Your task to perform on an android device: Search for dell xps on ebay.com, select the first entry, and add it to the cart. Image 0: 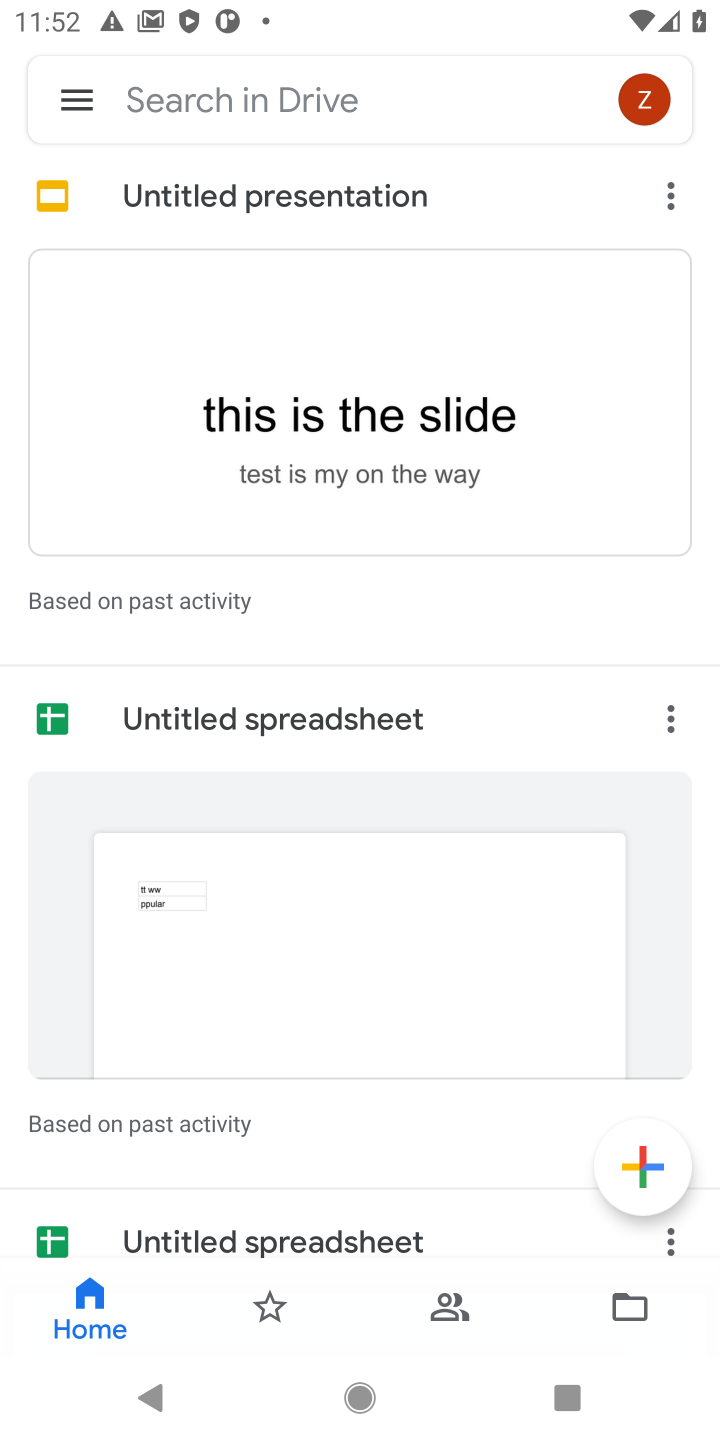
Step 0: press home button
Your task to perform on an android device: Search for dell xps on ebay.com, select the first entry, and add it to the cart. Image 1: 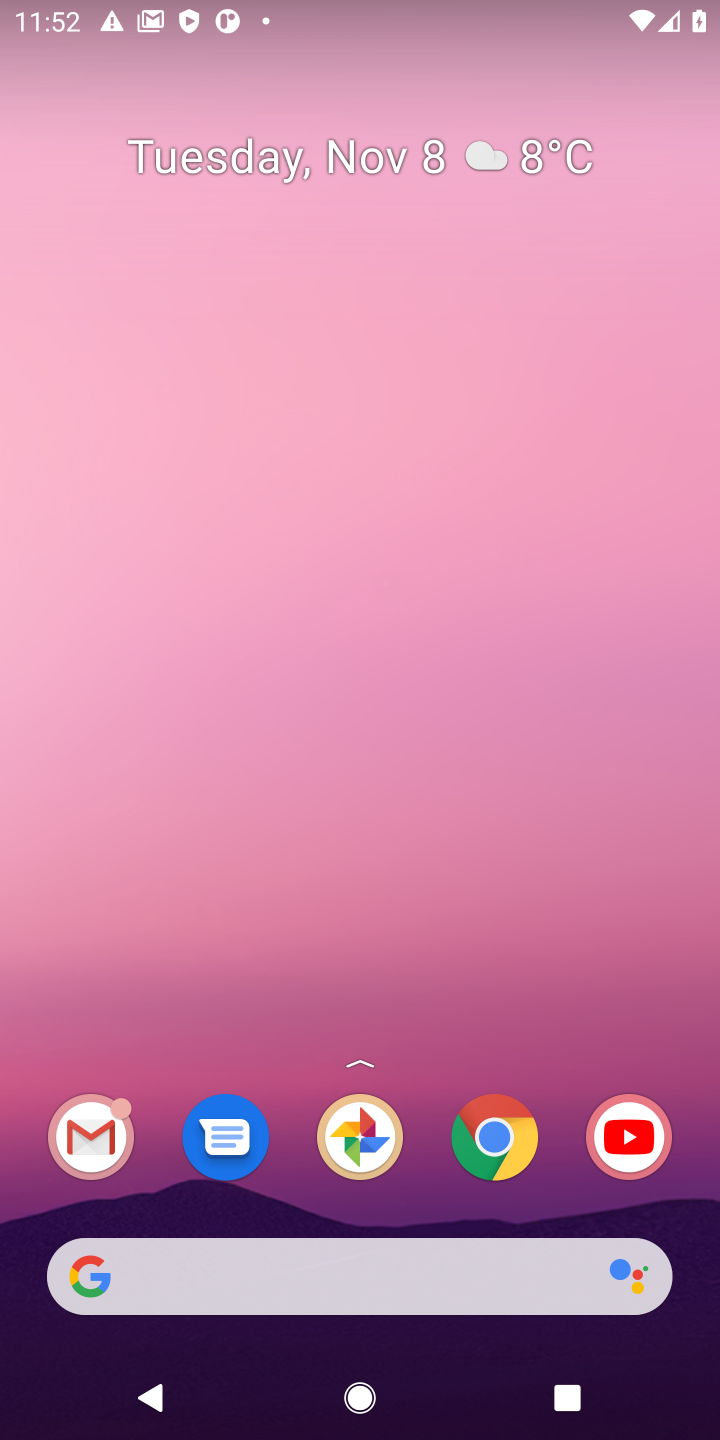
Step 1: click (482, 1154)
Your task to perform on an android device: Search for dell xps on ebay.com, select the first entry, and add it to the cart. Image 2: 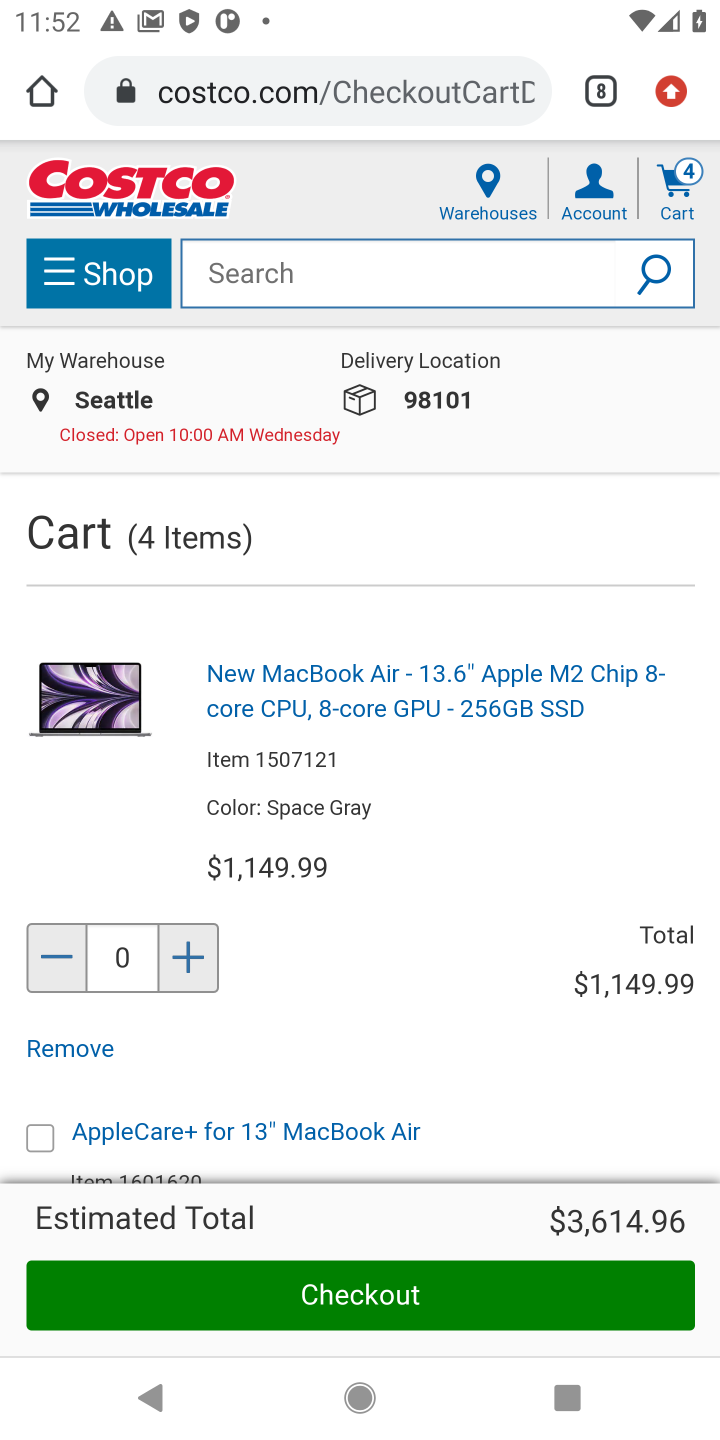
Step 2: click (598, 86)
Your task to perform on an android device: Search for dell xps on ebay.com, select the first entry, and add it to the cart. Image 3: 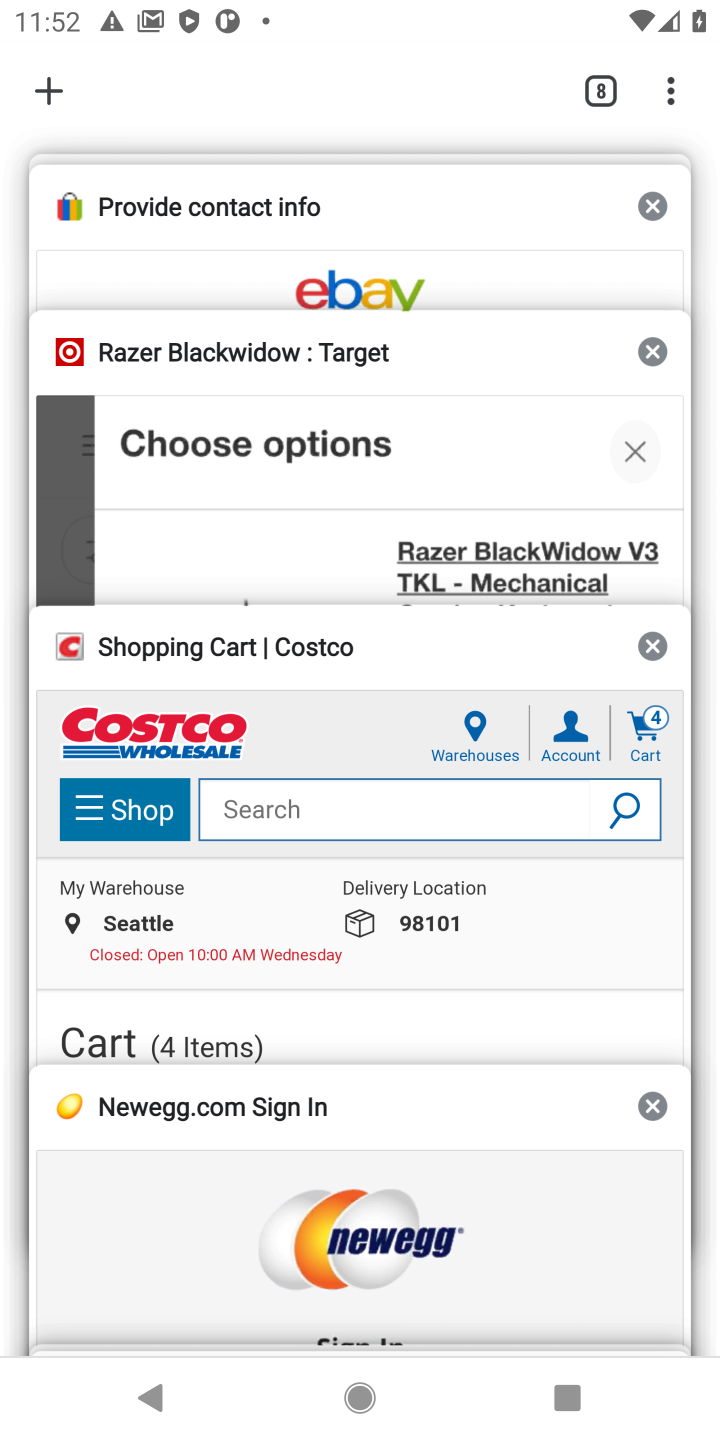
Step 3: click (424, 220)
Your task to perform on an android device: Search for dell xps on ebay.com, select the first entry, and add it to the cart. Image 4: 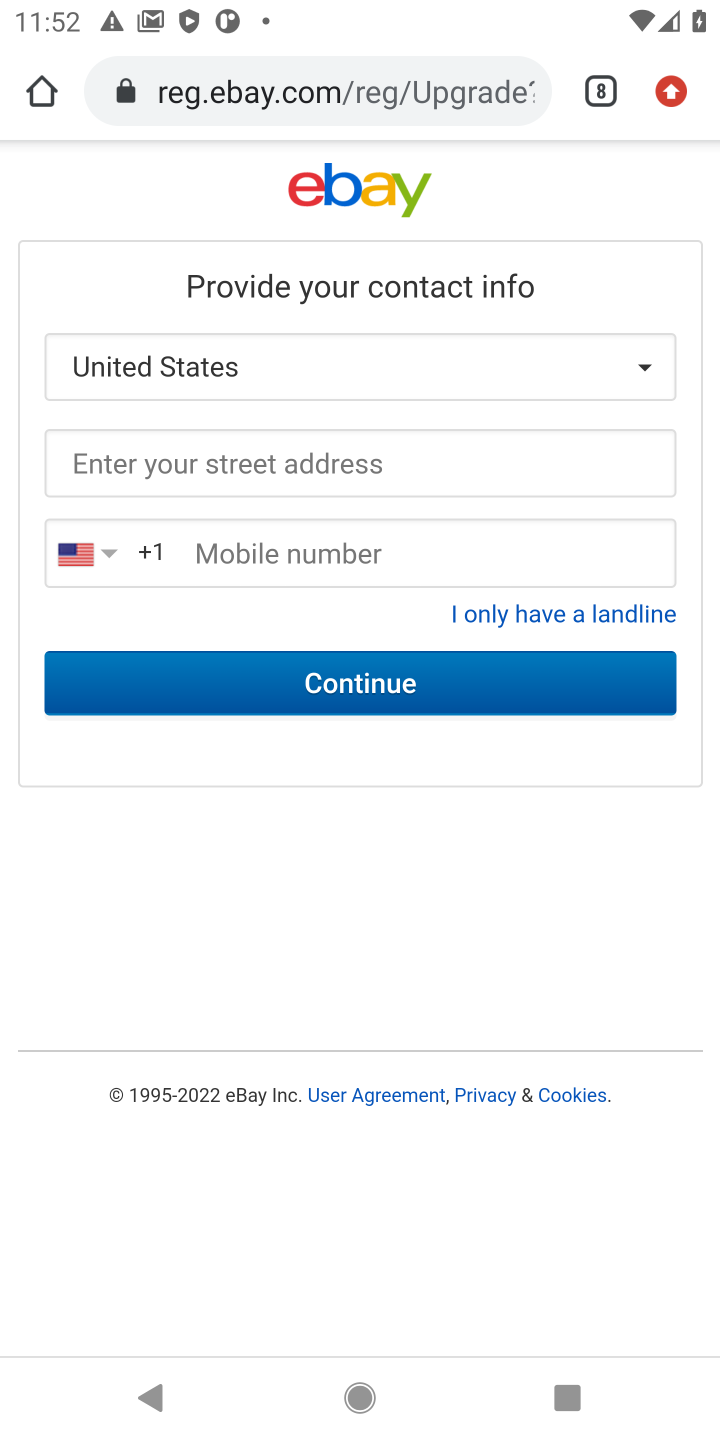
Step 4: press back button
Your task to perform on an android device: Search for dell xps on ebay.com, select the first entry, and add it to the cart. Image 5: 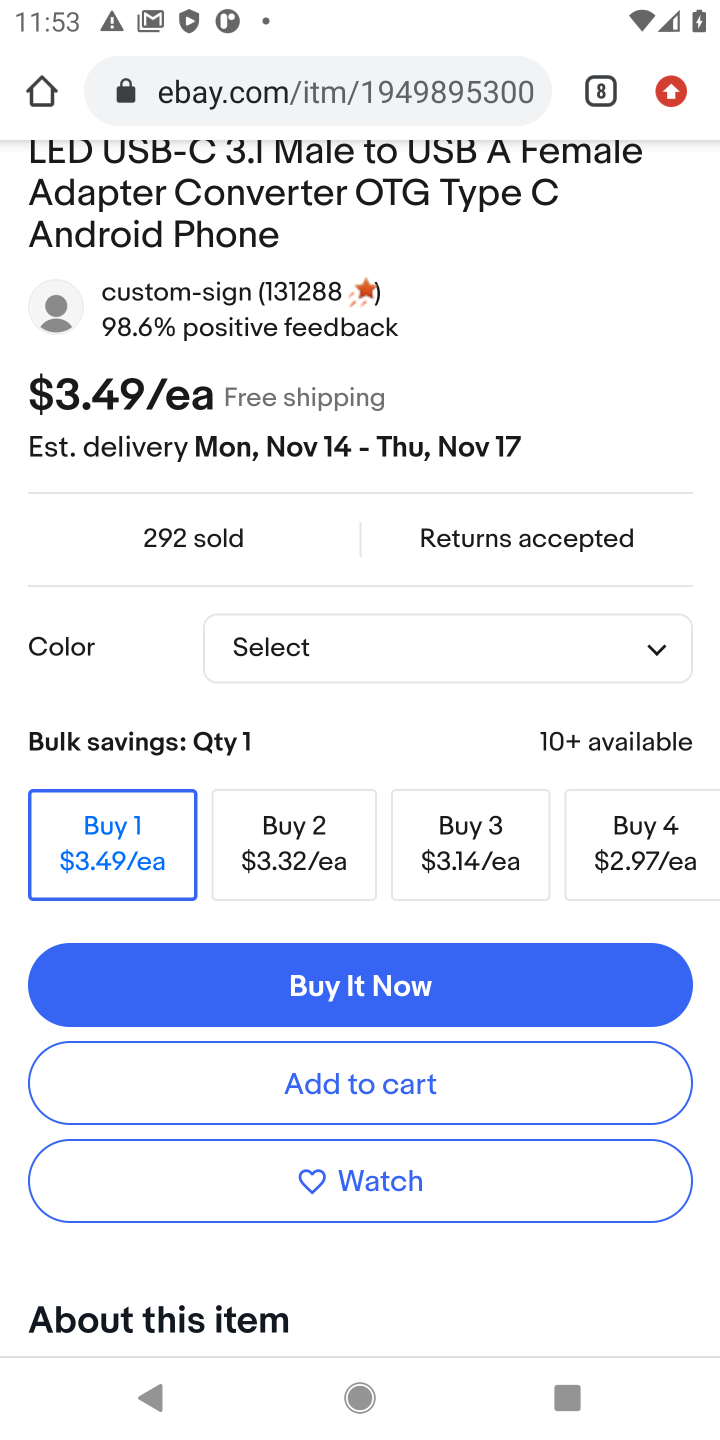
Step 5: drag from (649, 253) to (493, 1147)
Your task to perform on an android device: Search for dell xps on ebay.com, select the first entry, and add it to the cart. Image 6: 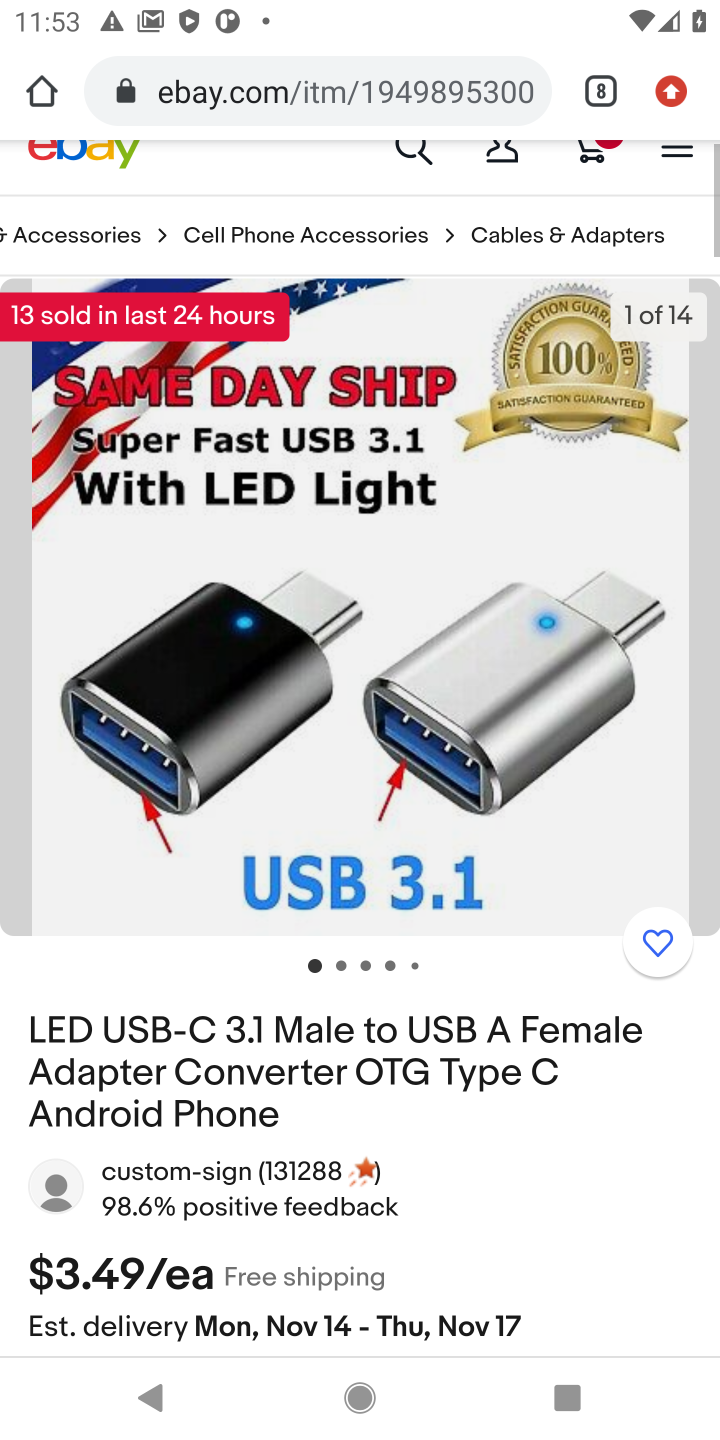
Step 6: drag from (569, 298) to (564, 1013)
Your task to perform on an android device: Search for dell xps on ebay.com, select the first entry, and add it to the cart. Image 7: 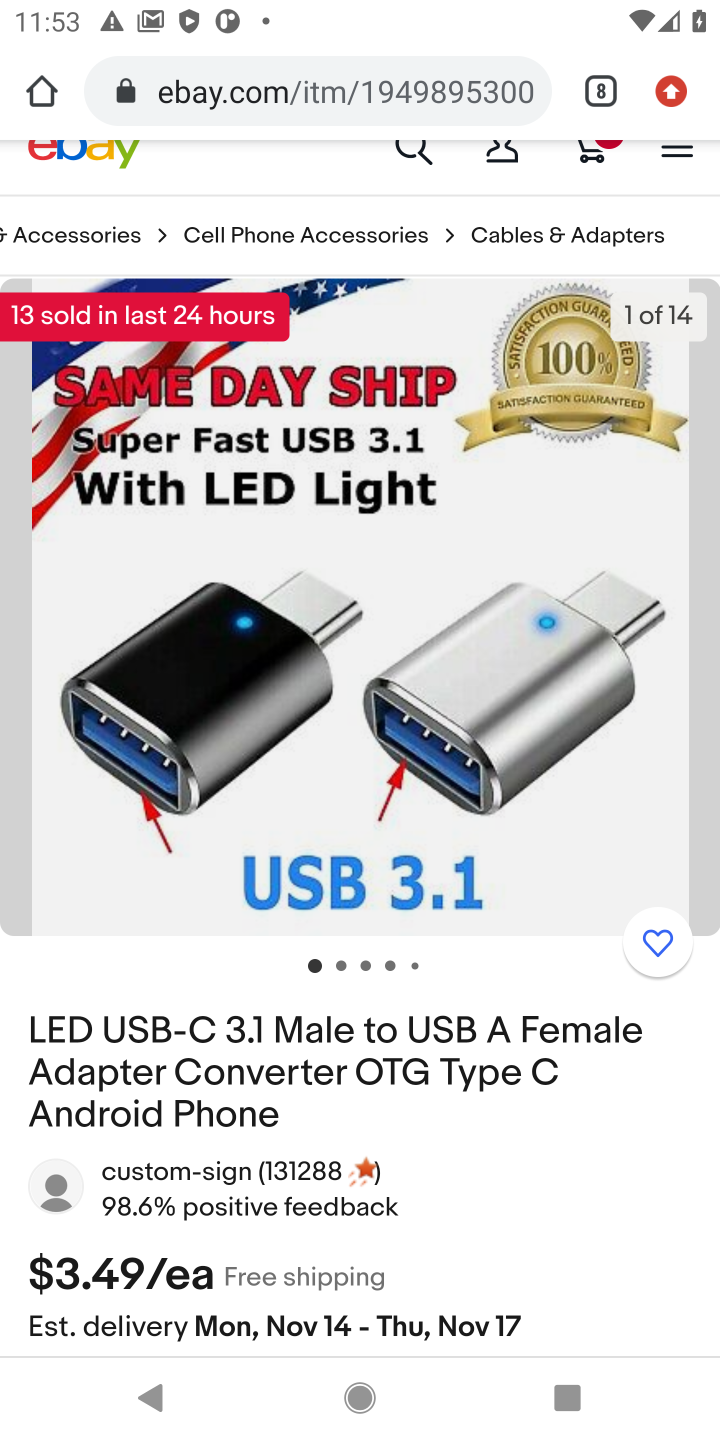
Step 7: click (406, 147)
Your task to perform on an android device: Search for dell xps on ebay.com, select the first entry, and add it to the cart. Image 8: 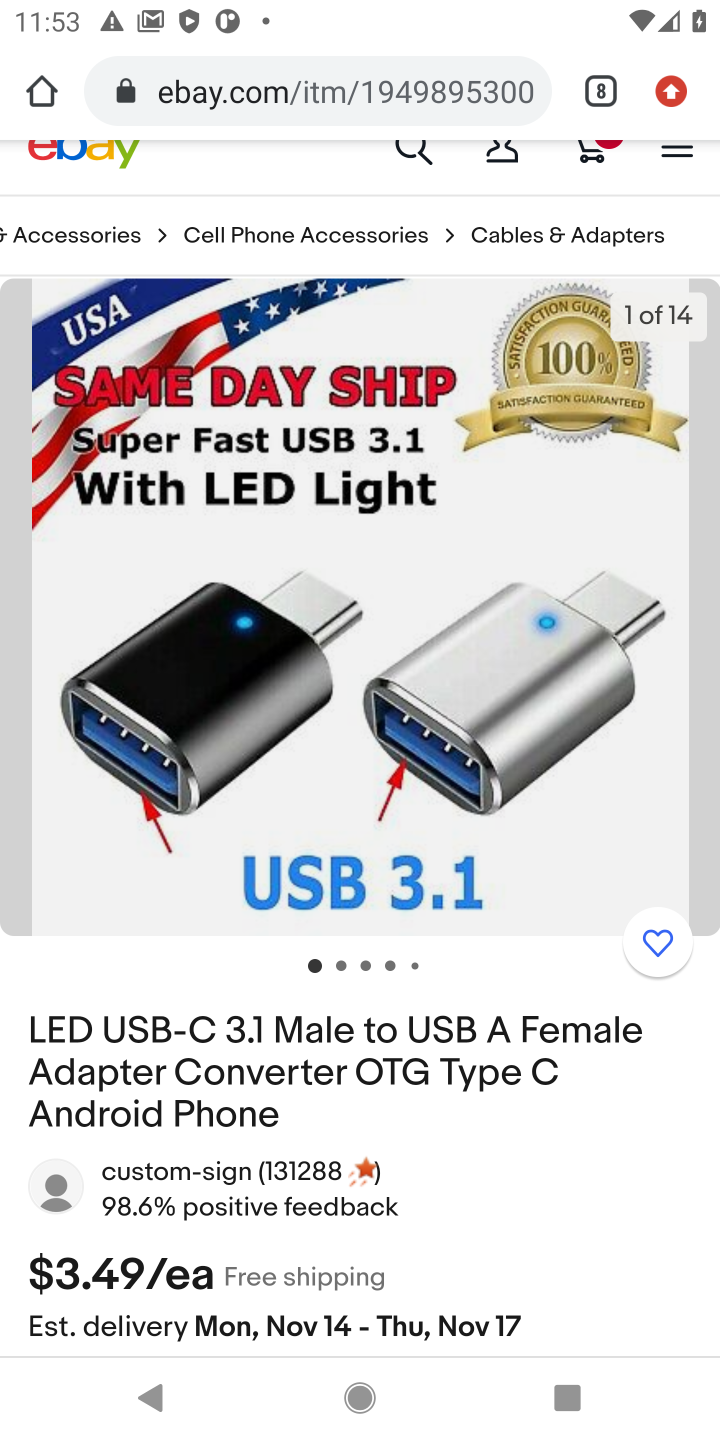
Step 8: click (412, 150)
Your task to perform on an android device: Search for dell xps on ebay.com, select the first entry, and add it to the cart. Image 9: 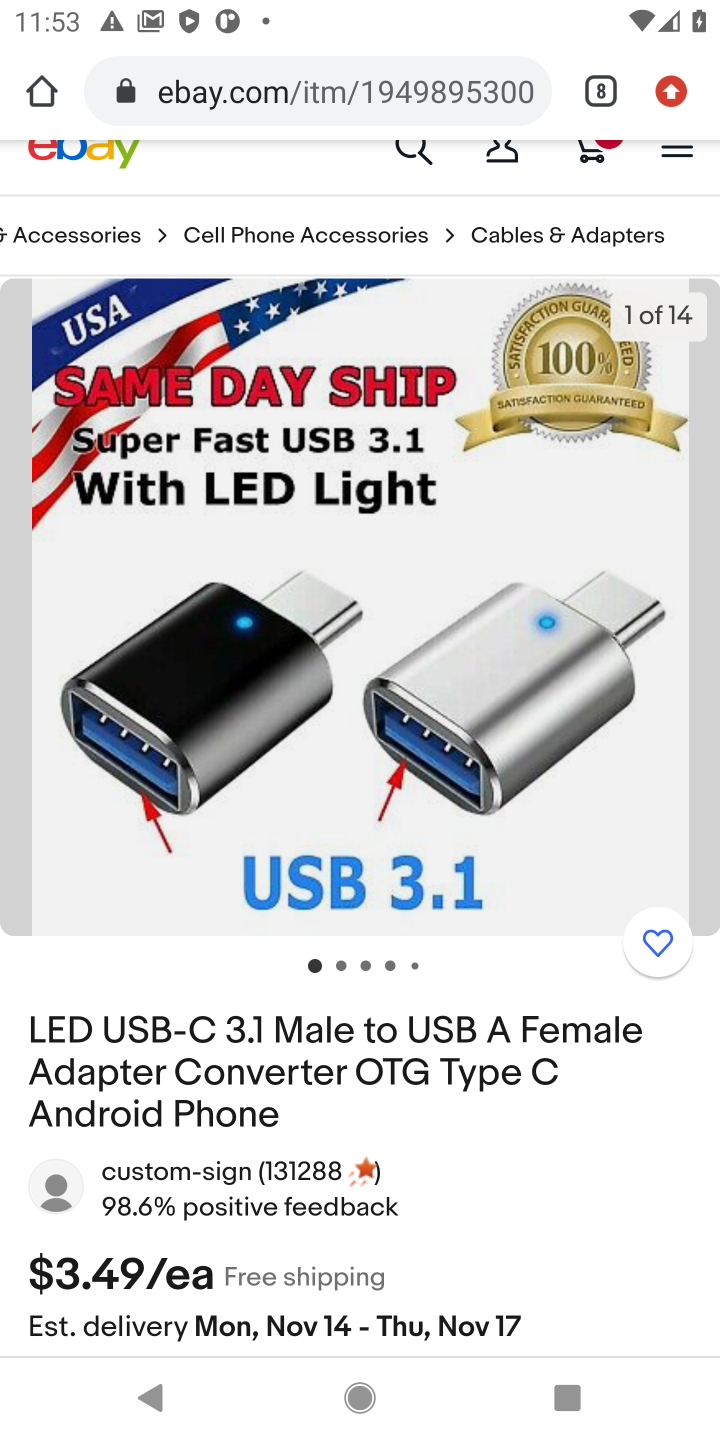
Step 9: drag from (535, 197) to (510, 692)
Your task to perform on an android device: Search for dell xps on ebay.com, select the first entry, and add it to the cart. Image 10: 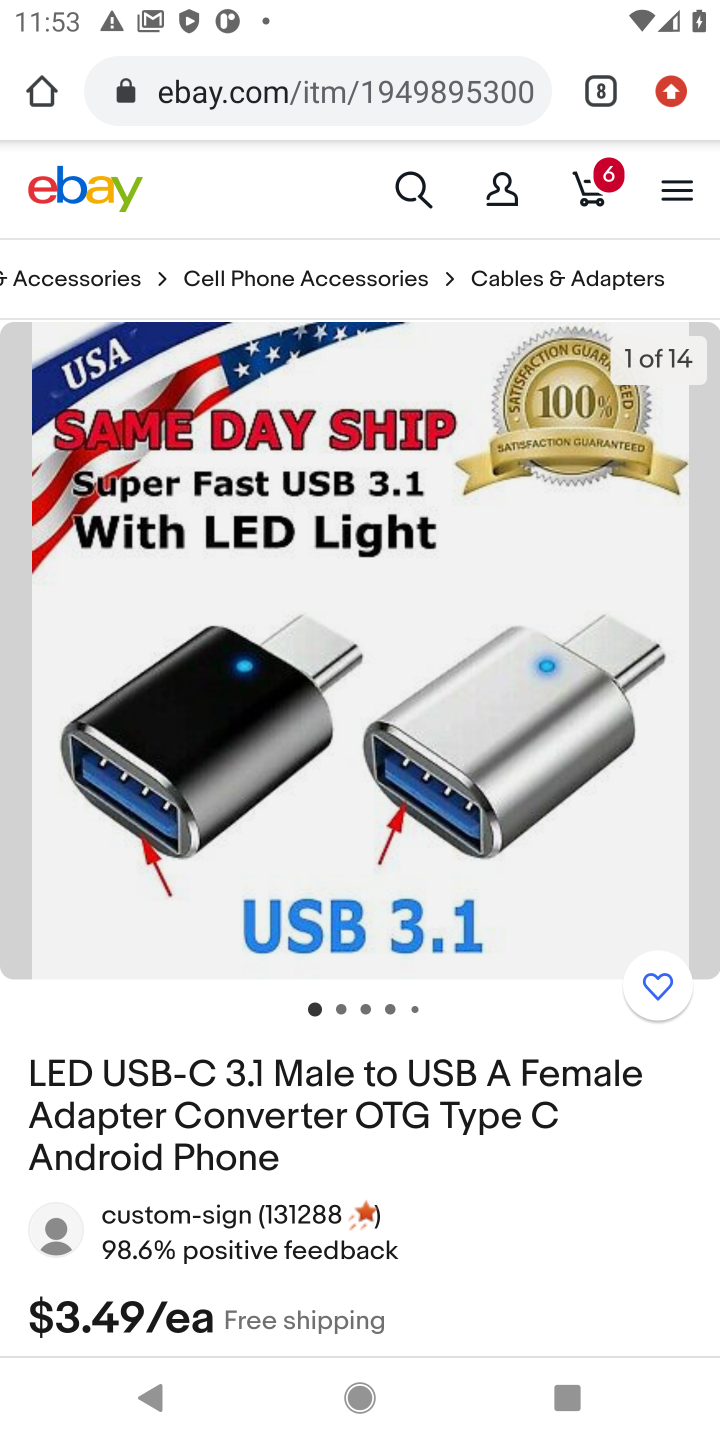
Step 10: click (410, 195)
Your task to perform on an android device: Search for dell xps on ebay.com, select the first entry, and add it to the cart. Image 11: 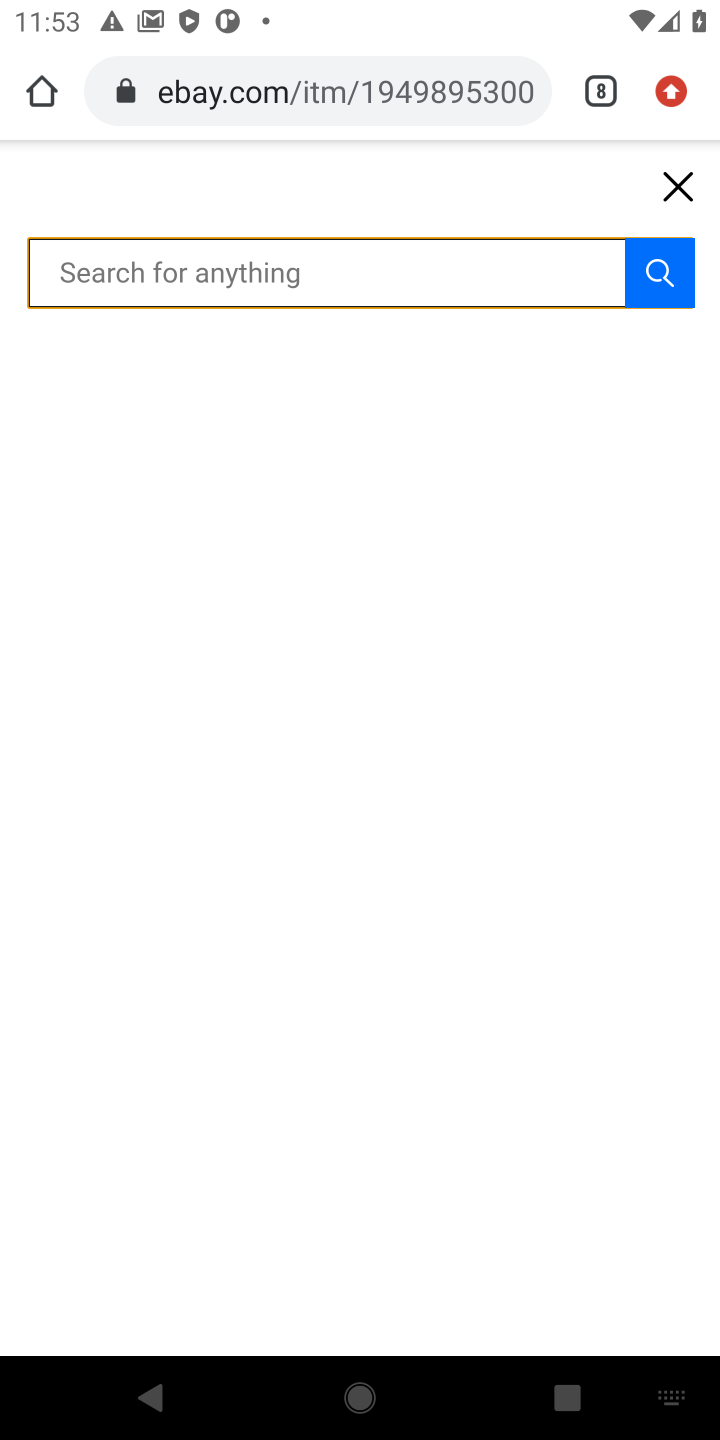
Step 11: type "dell xps"
Your task to perform on an android device: Search for dell xps on ebay.com, select the first entry, and add it to the cart. Image 12: 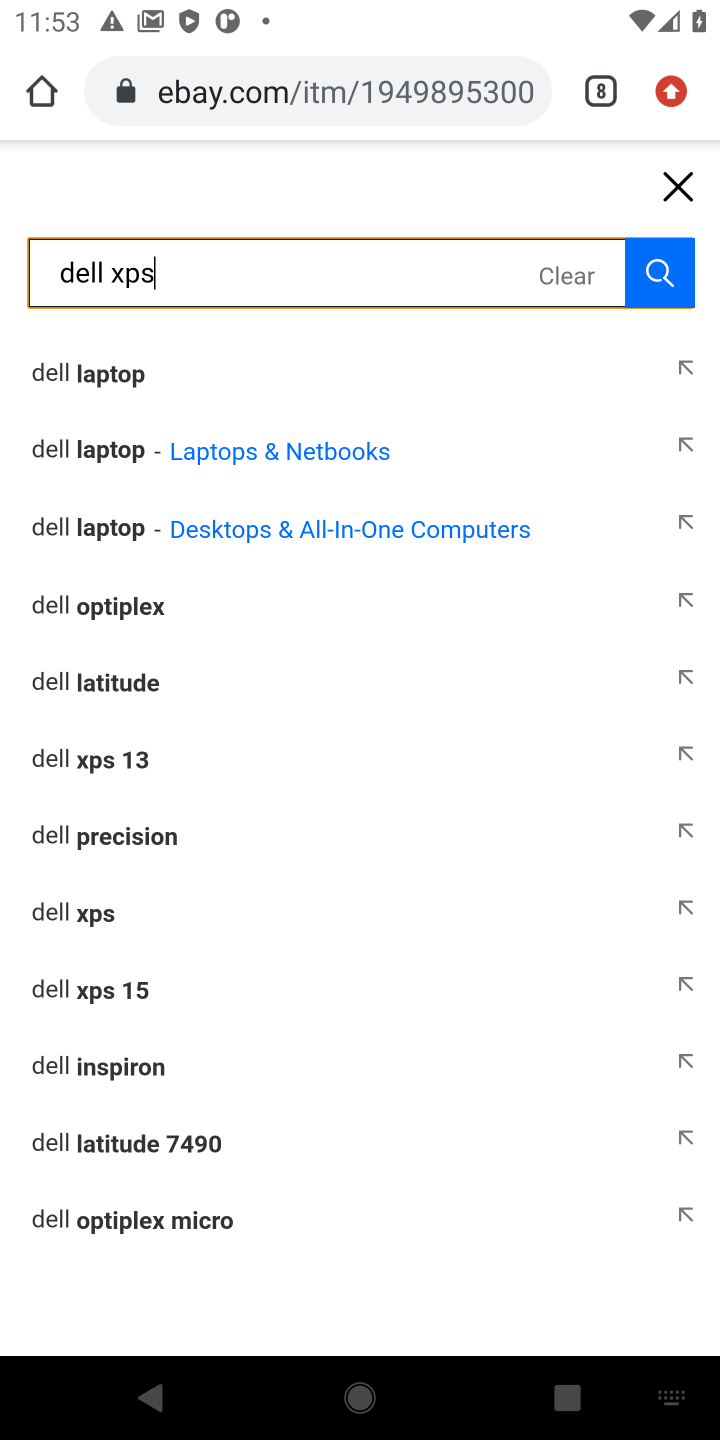
Step 12: click (84, 909)
Your task to perform on an android device: Search for dell xps on ebay.com, select the first entry, and add it to the cart. Image 13: 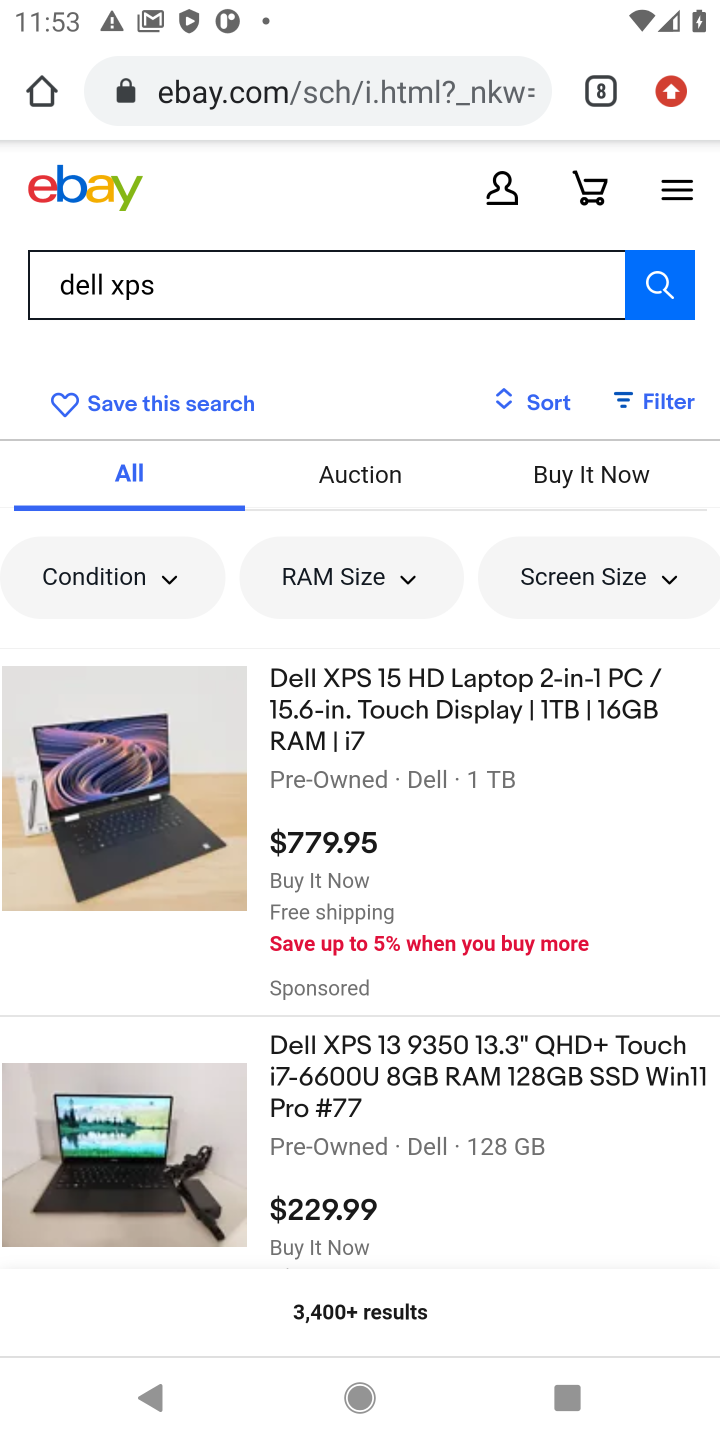
Step 13: click (497, 707)
Your task to perform on an android device: Search for dell xps on ebay.com, select the first entry, and add it to the cart. Image 14: 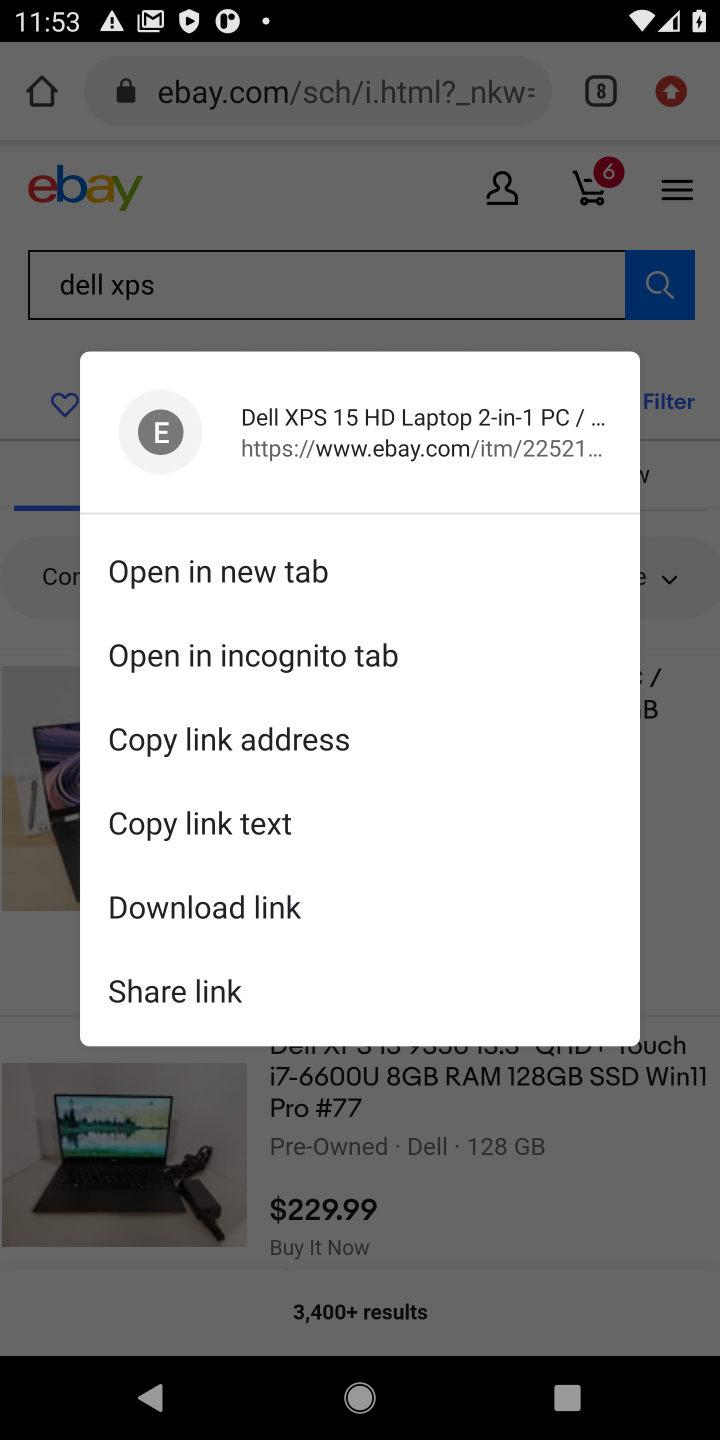
Step 14: click (599, 1150)
Your task to perform on an android device: Search for dell xps on ebay.com, select the first entry, and add it to the cart. Image 15: 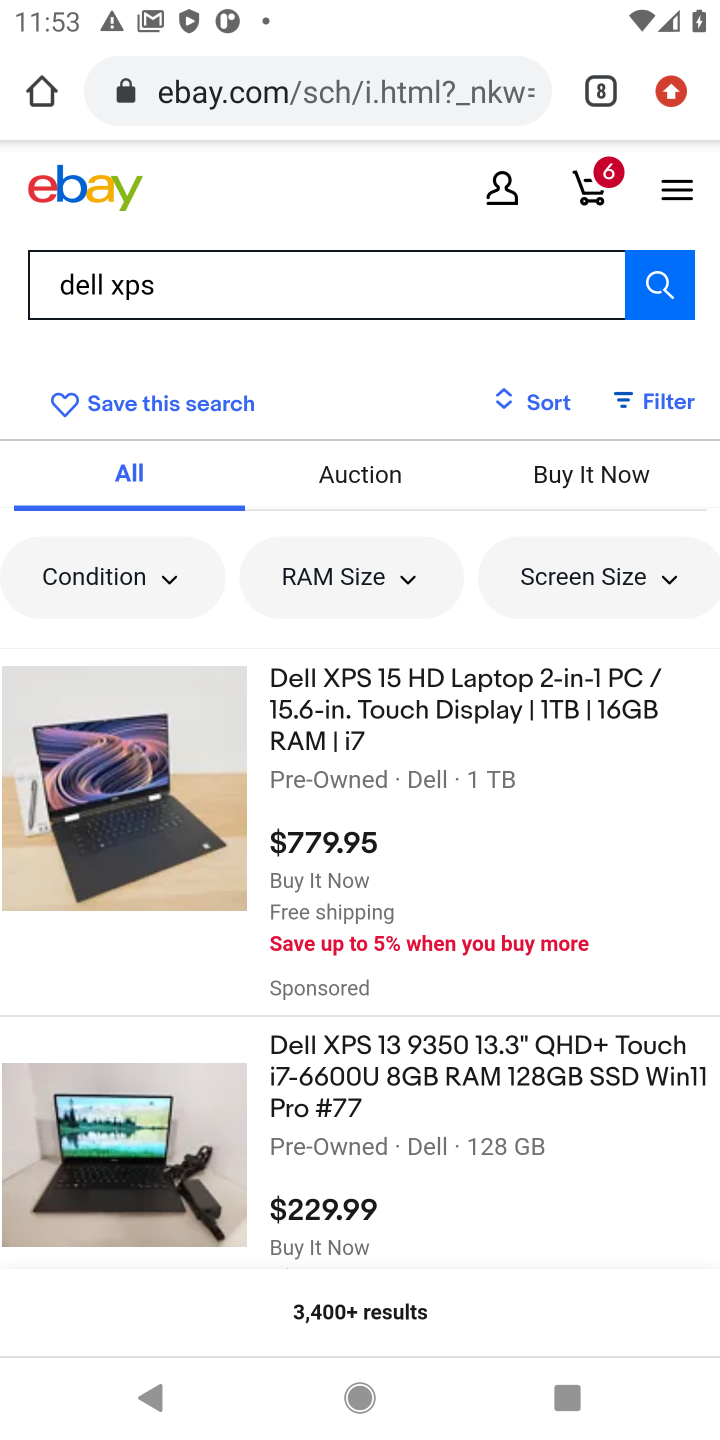
Step 15: click (497, 687)
Your task to perform on an android device: Search for dell xps on ebay.com, select the first entry, and add it to the cart. Image 16: 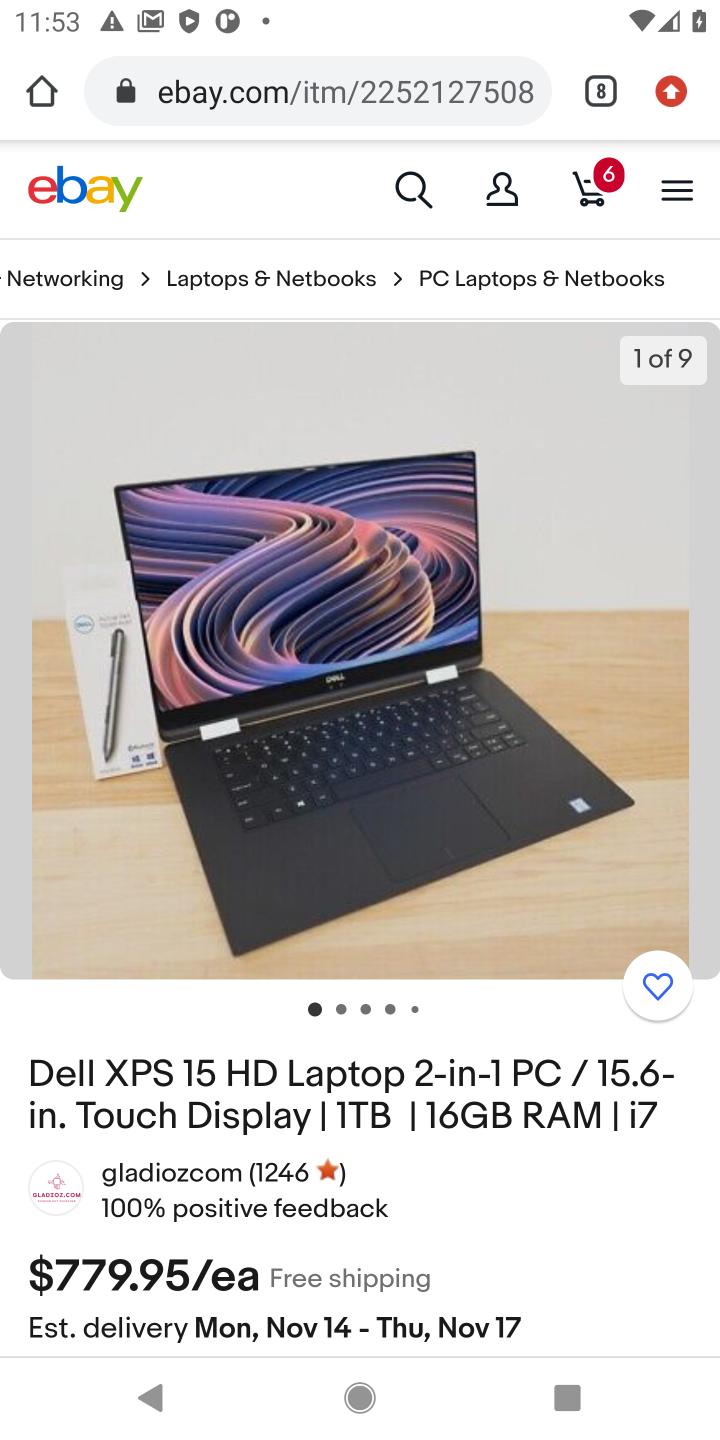
Step 16: drag from (715, 523) to (666, 1215)
Your task to perform on an android device: Search for dell xps on ebay.com, select the first entry, and add it to the cart. Image 17: 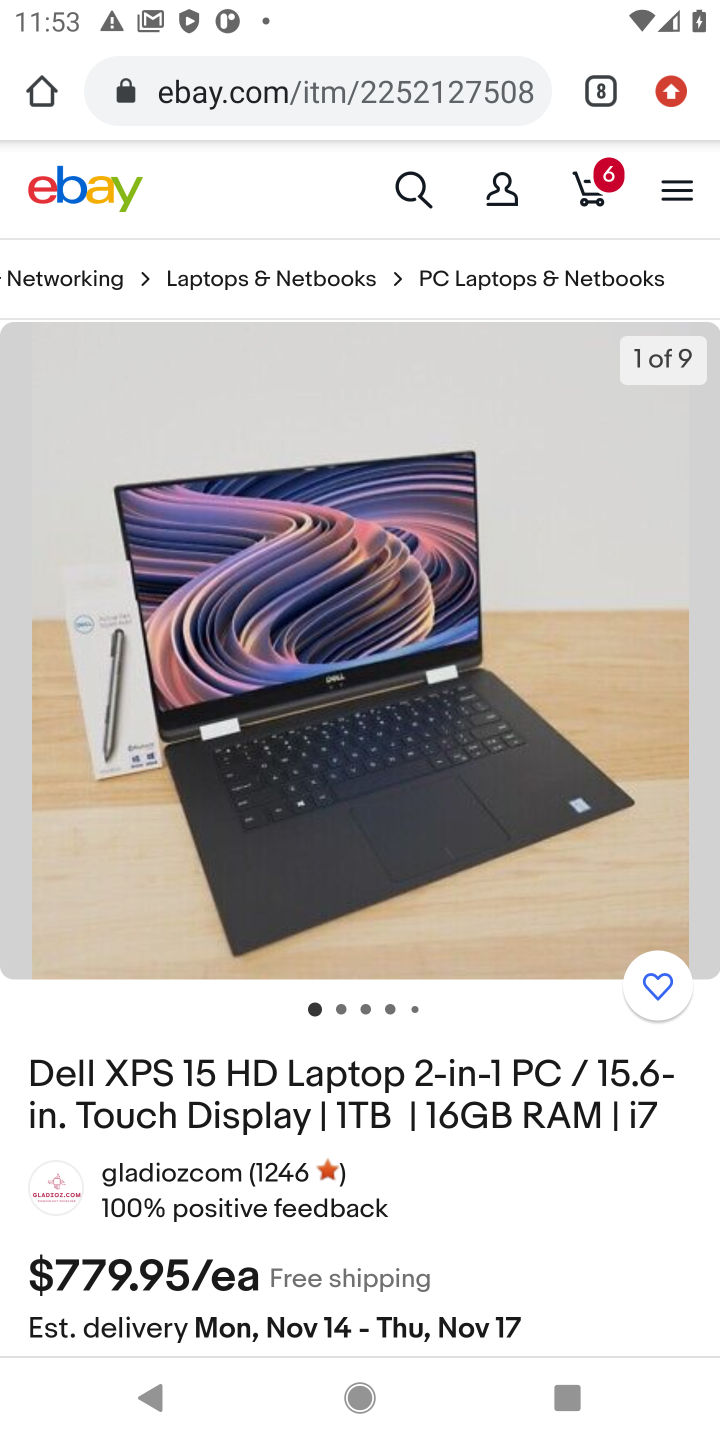
Step 17: drag from (488, 1263) to (688, 371)
Your task to perform on an android device: Search for dell xps on ebay.com, select the first entry, and add it to the cart. Image 18: 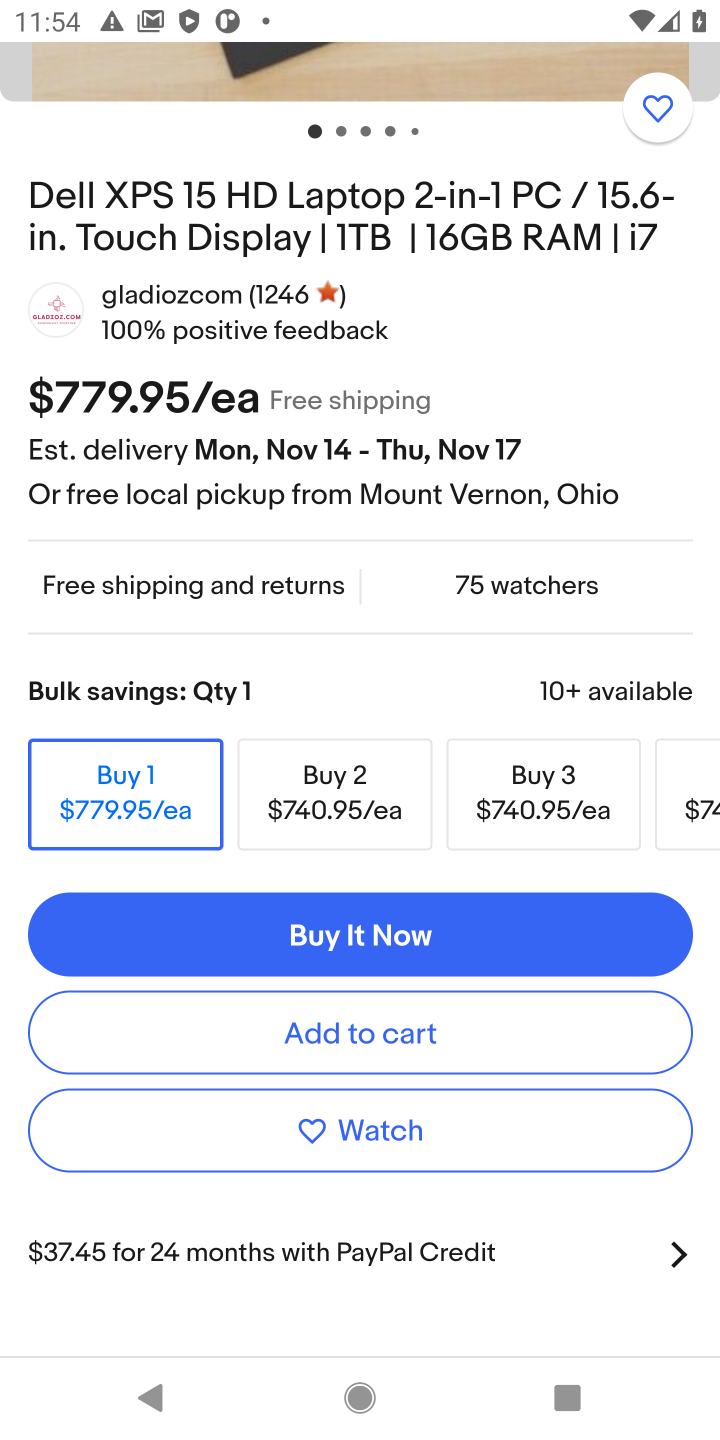
Step 18: click (369, 1036)
Your task to perform on an android device: Search for dell xps on ebay.com, select the first entry, and add it to the cart. Image 19: 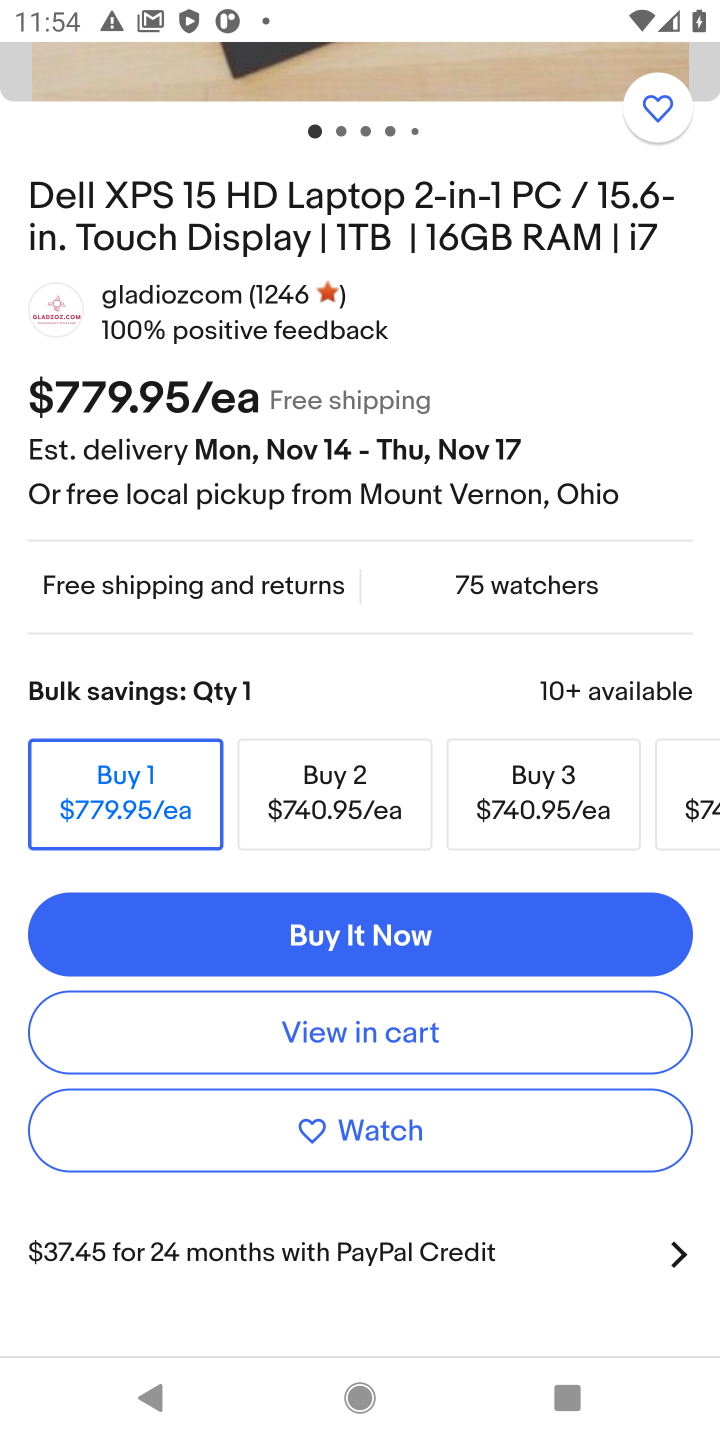
Step 19: task complete